Your task to perform on an android device: delete the emails in spam in the gmail app Image 0: 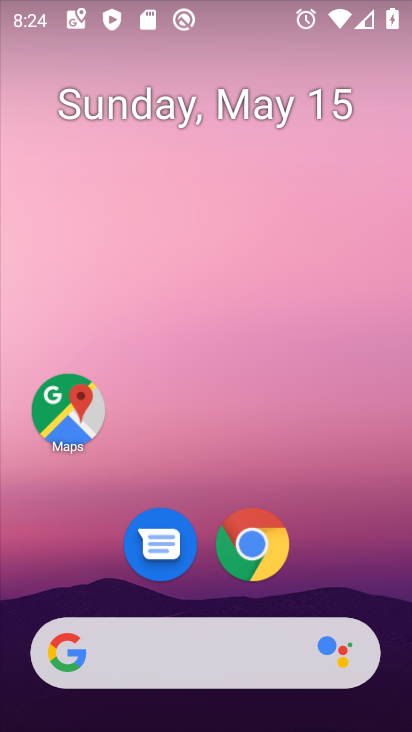
Step 0: drag from (307, 587) to (355, 11)
Your task to perform on an android device: delete the emails in spam in the gmail app Image 1: 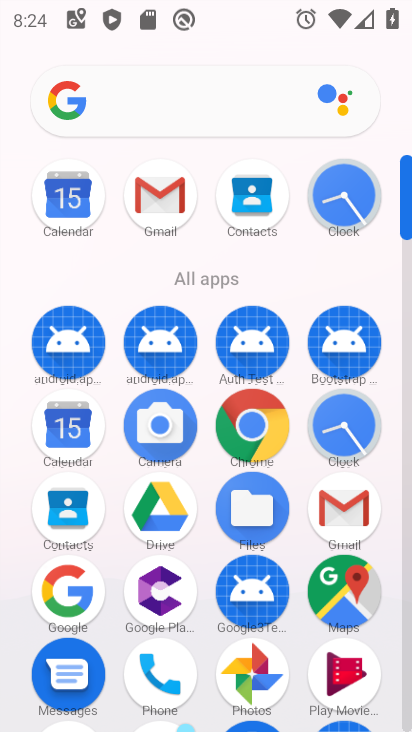
Step 1: drag from (210, 649) to (216, 518)
Your task to perform on an android device: delete the emails in spam in the gmail app Image 2: 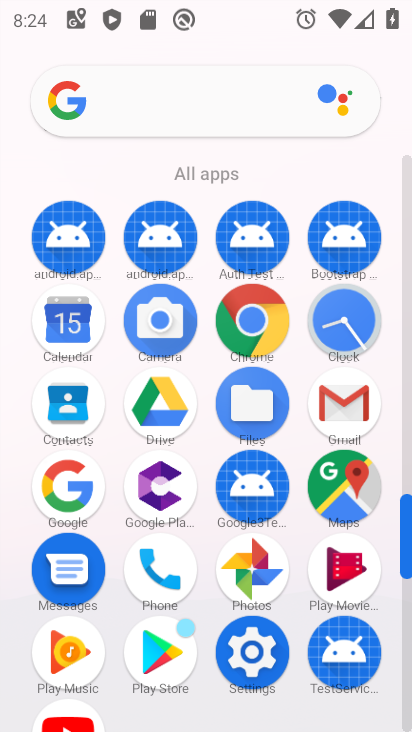
Step 2: click (356, 398)
Your task to perform on an android device: delete the emails in spam in the gmail app Image 3: 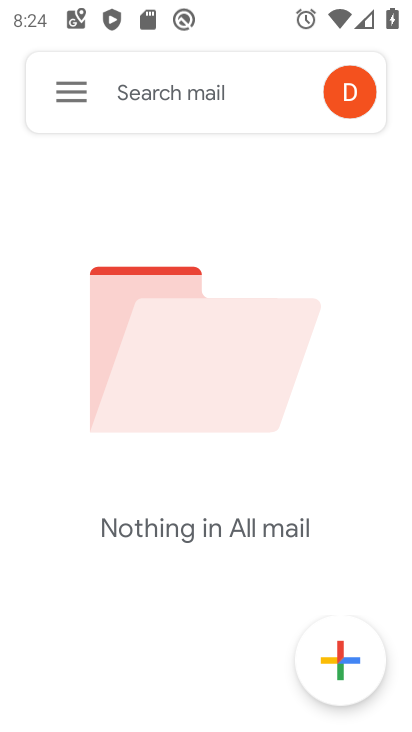
Step 3: click (73, 107)
Your task to perform on an android device: delete the emails in spam in the gmail app Image 4: 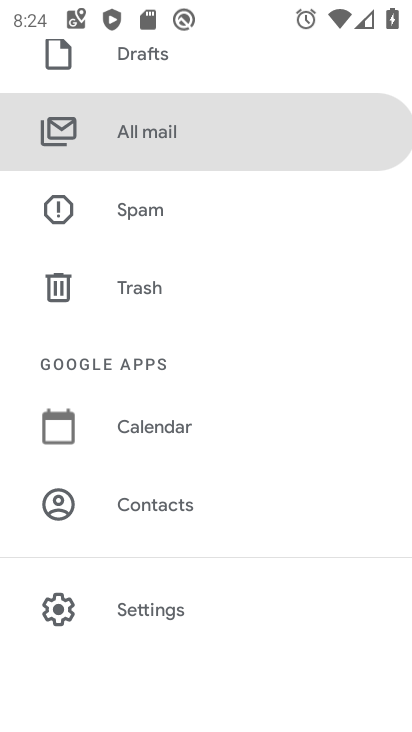
Step 4: click (175, 220)
Your task to perform on an android device: delete the emails in spam in the gmail app Image 5: 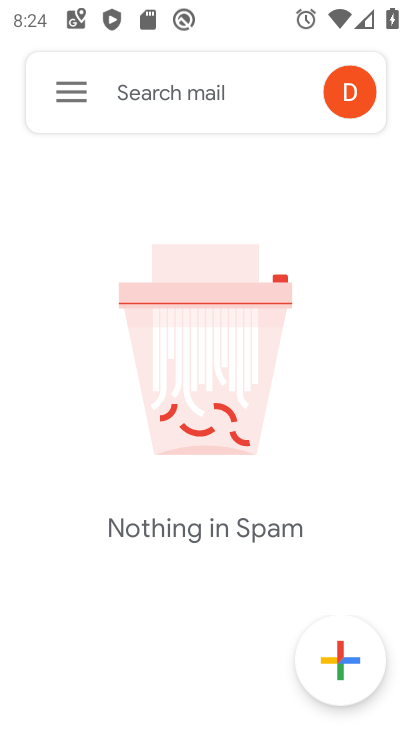
Step 5: task complete